Your task to perform on an android device: toggle priority inbox in the gmail app Image 0: 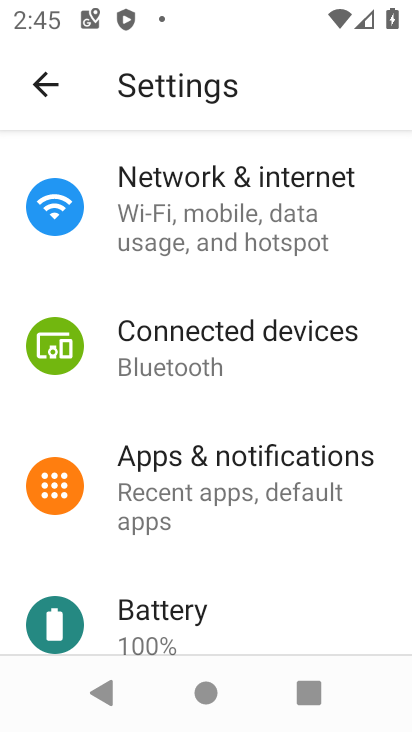
Step 0: press home button
Your task to perform on an android device: toggle priority inbox in the gmail app Image 1: 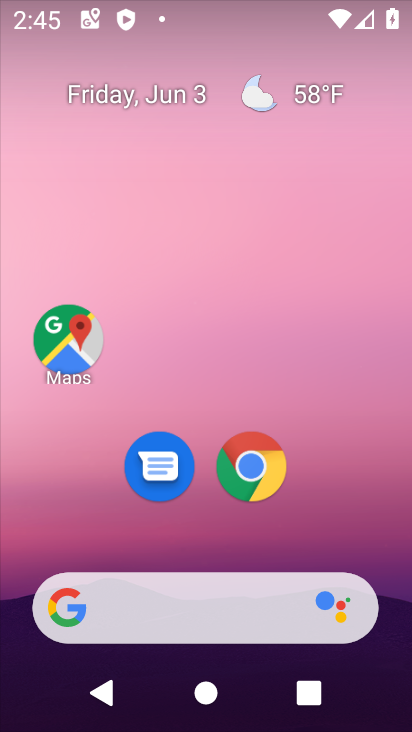
Step 1: drag from (363, 434) to (363, 257)
Your task to perform on an android device: toggle priority inbox in the gmail app Image 2: 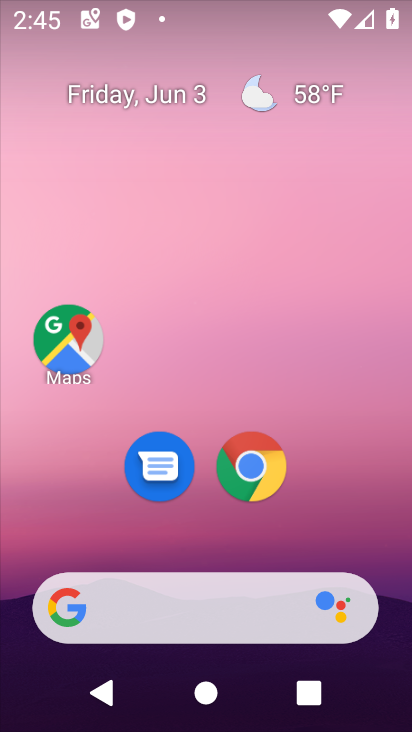
Step 2: drag from (336, 487) to (307, 112)
Your task to perform on an android device: toggle priority inbox in the gmail app Image 3: 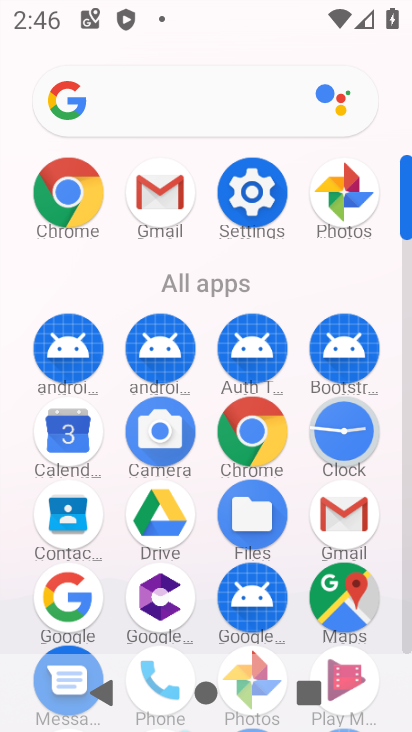
Step 3: drag from (299, 560) to (288, 257)
Your task to perform on an android device: toggle priority inbox in the gmail app Image 4: 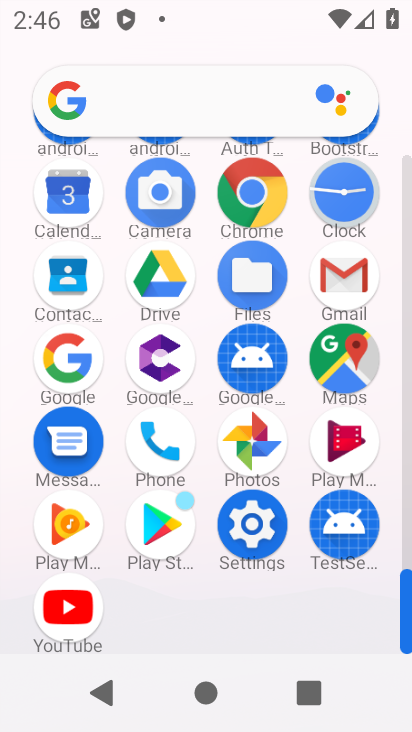
Step 4: click (335, 264)
Your task to perform on an android device: toggle priority inbox in the gmail app Image 5: 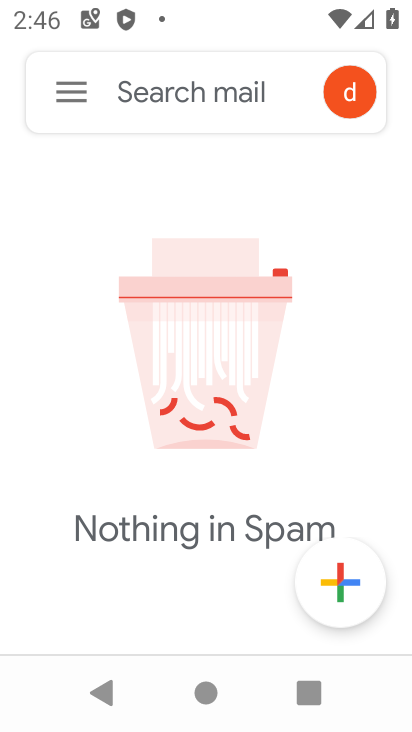
Step 5: click (45, 96)
Your task to perform on an android device: toggle priority inbox in the gmail app Image 6: 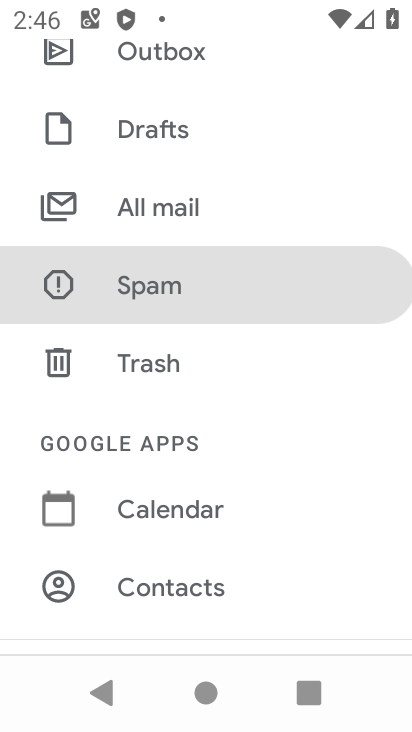
Step 6: drag from (273, 84) to (239, 312)
Your task to perform on an android device: toggle priority inbox in the gmail app Image 7: 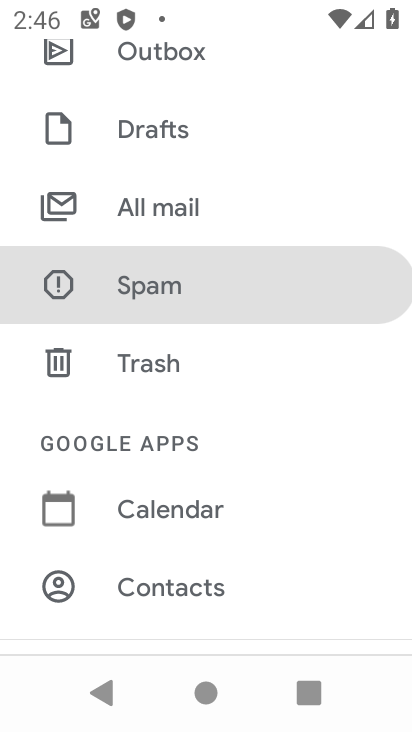
Step 7: drag from (323, 555) to (291, 116)
Your task to perform on an android device: toggle priority inbox in the gmail app Image 8: 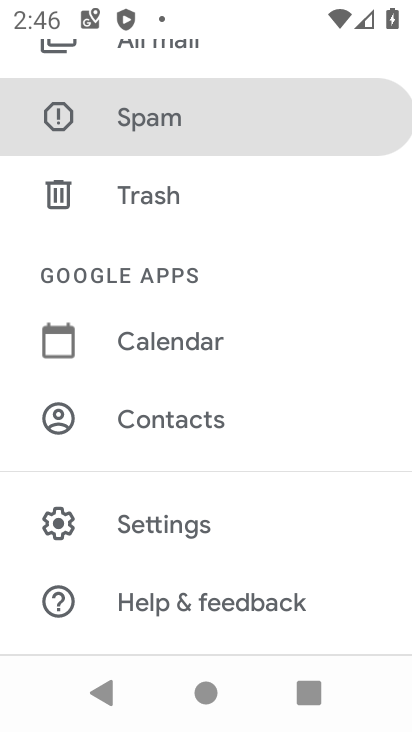
Step 8: click (249, 520)
Your task to perform on an android device: toggle priority inbox in the gmail app Image 9: 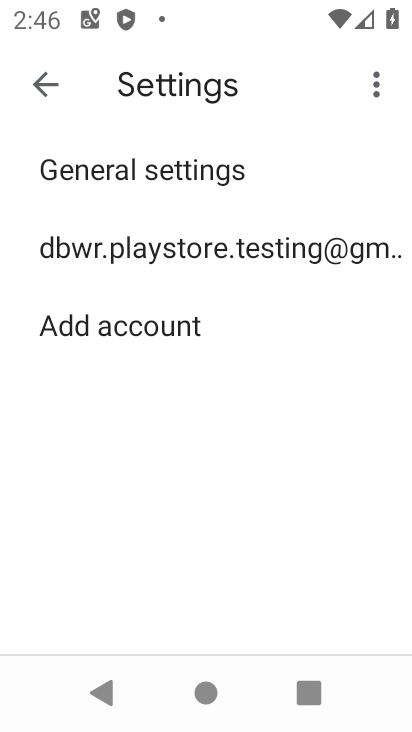
Step 9: click (133, 176)
Your task to perform on an android device: toggle priority inbox in the gmail app Image 10: 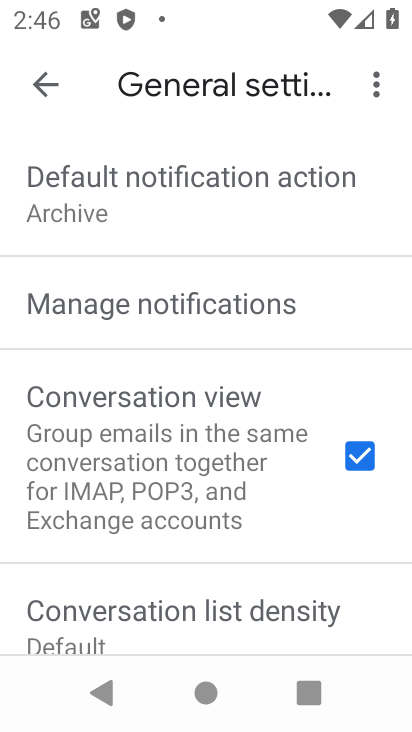
Step 10: task complete